Your task to perform on an android device: find which apps use the phone's location Image 0: 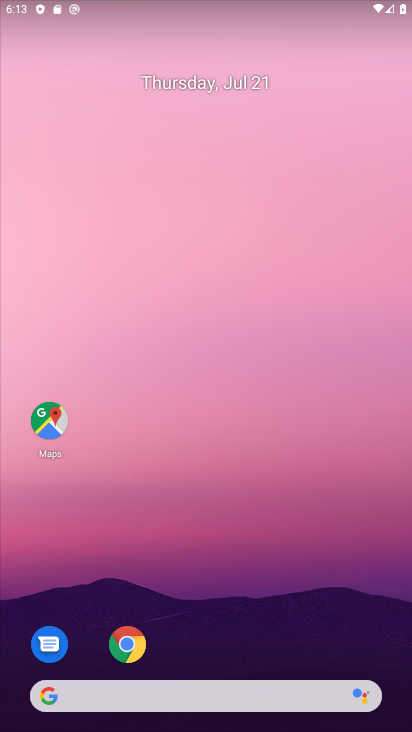
Step 0: drag from (197, 564) to (216, 25)
Your task to perform on an android device: find which apps use the phone's location Image 1: 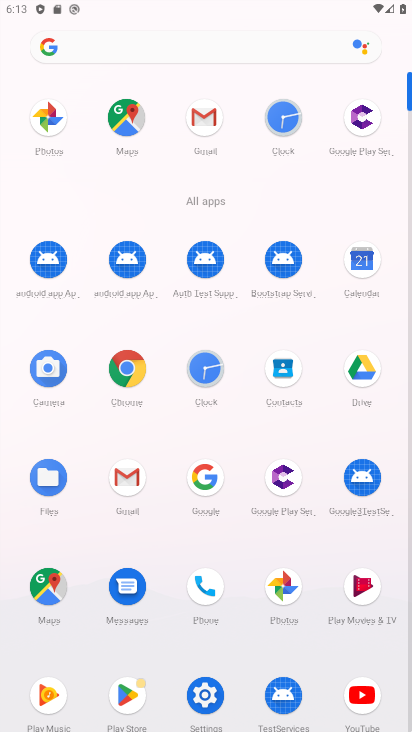
Step 1: click (215, 689)
Your task to perform on an android device: find which apps use the phone's location Image 2: 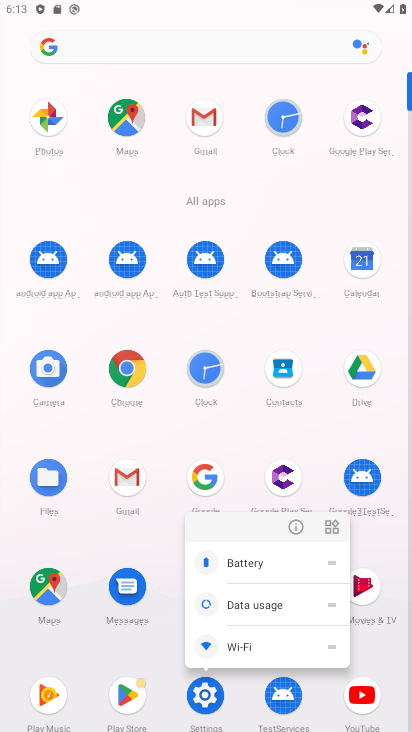
Step 2: click (215, 689)
Your task to perform on an android device: find which apps use the phone's location Image 3: 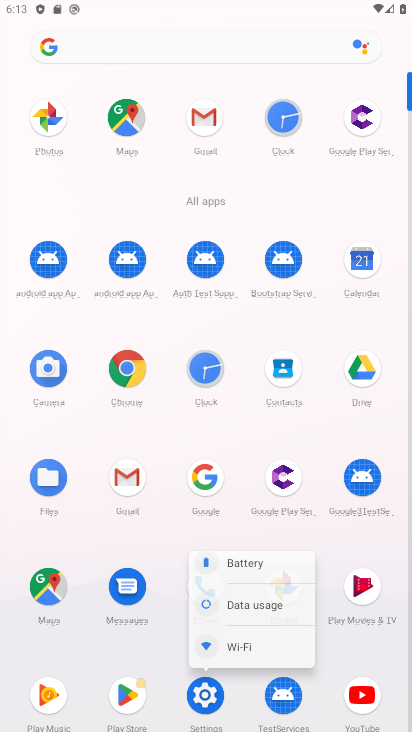
Step 3: click (215, 689)
Your task to perform on an android device: find which apps use the phone's location Image 4: 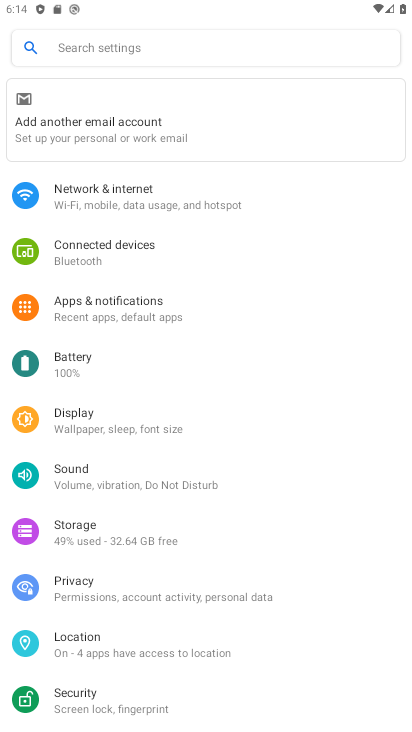
Step 4: click (91, 643)
Your task to perform on an android device: find which apps use the phone's location Image 5: 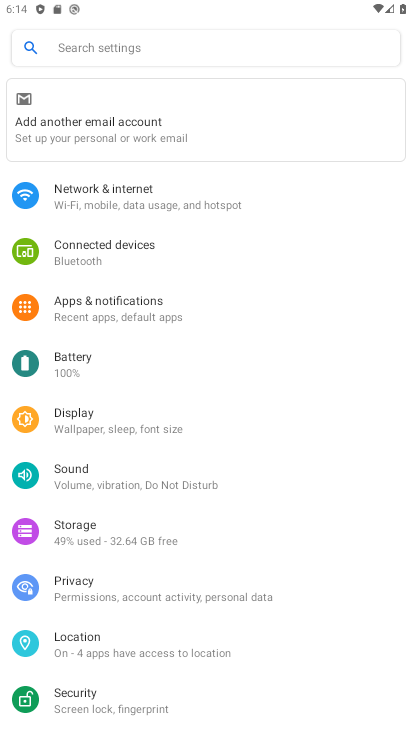
Step 5: click (91, 643)
Your task to perform on an android device: find which apps use the phone's location Image 6: 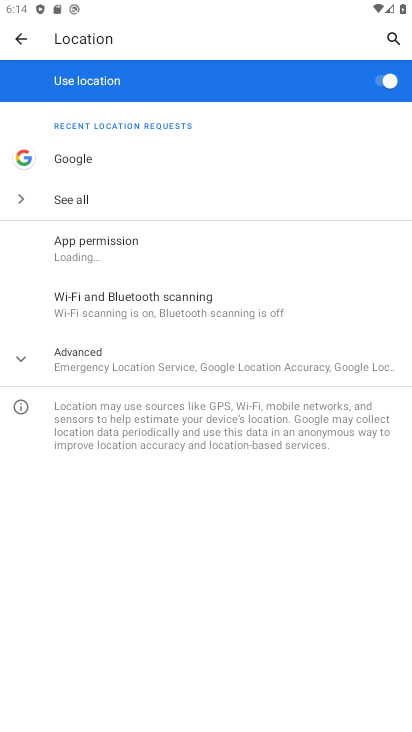
Step 6: click (127, 245)
Your task to perform on an android device: find which apps use the phone's location Image 7: 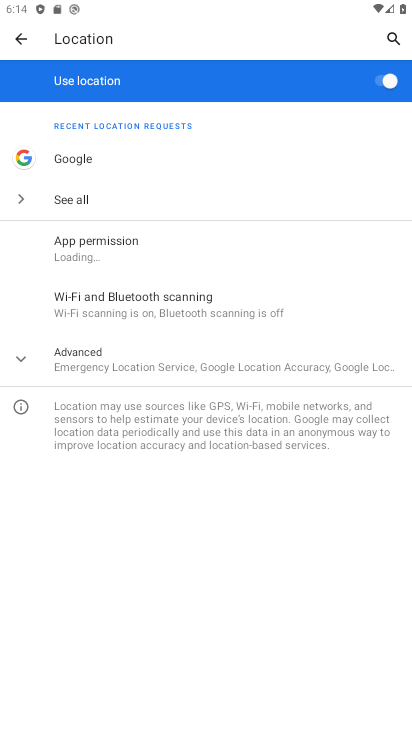
Step 7: click (127, 245)
Your task to perform on an android device: find which apps use the phone's location Image 8: 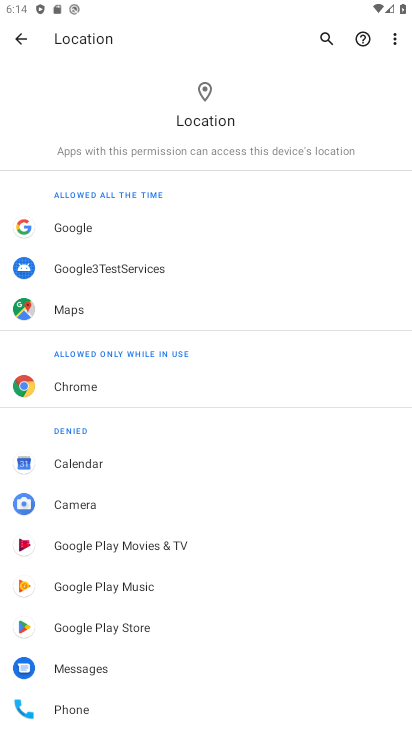
Step 8: task complete